Your task to perform on an android device: Search for "logitech g910" on ebay, select the first entry, add it to the cart, then select checkout. Image 0: 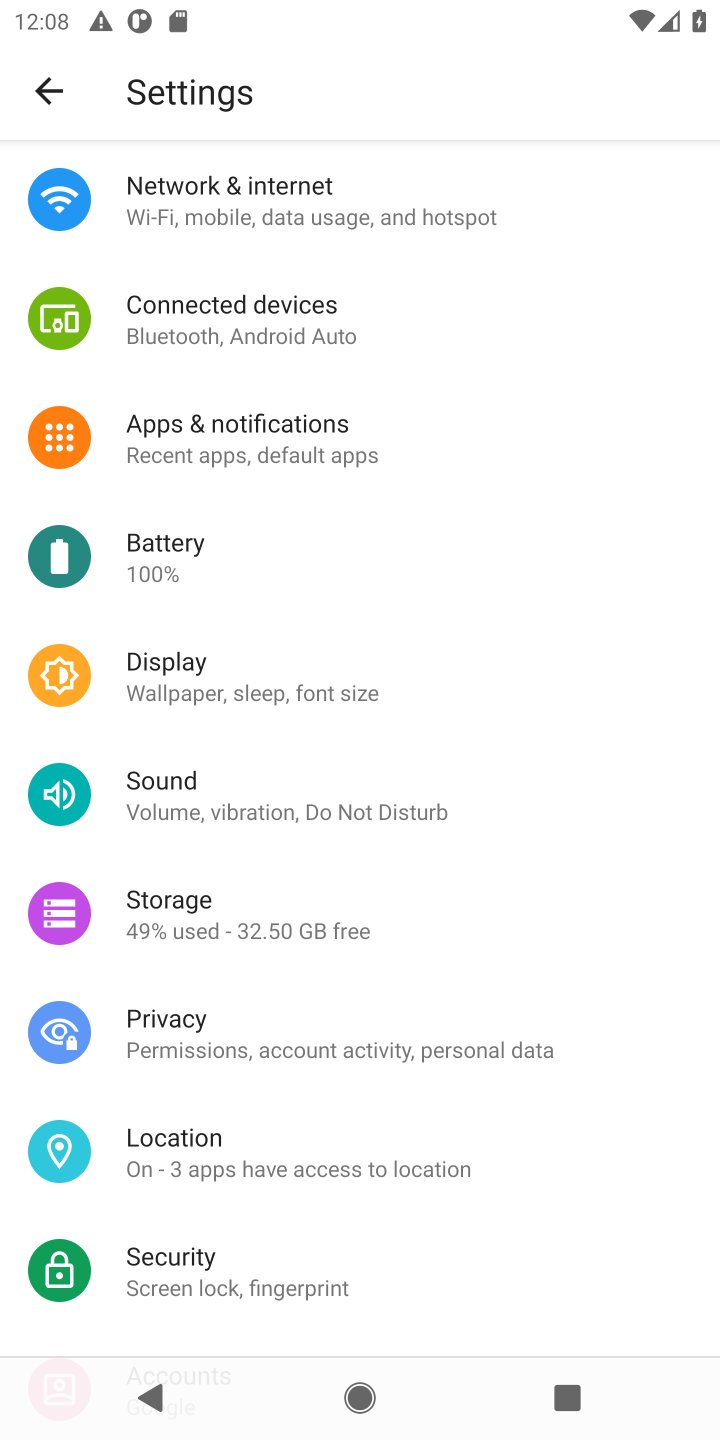
Step 0: press home button
Your task to perform on an android device: Search for "logitech g910" on ebay, select the first entry, add it to the cart, then select checkout. Image 1: 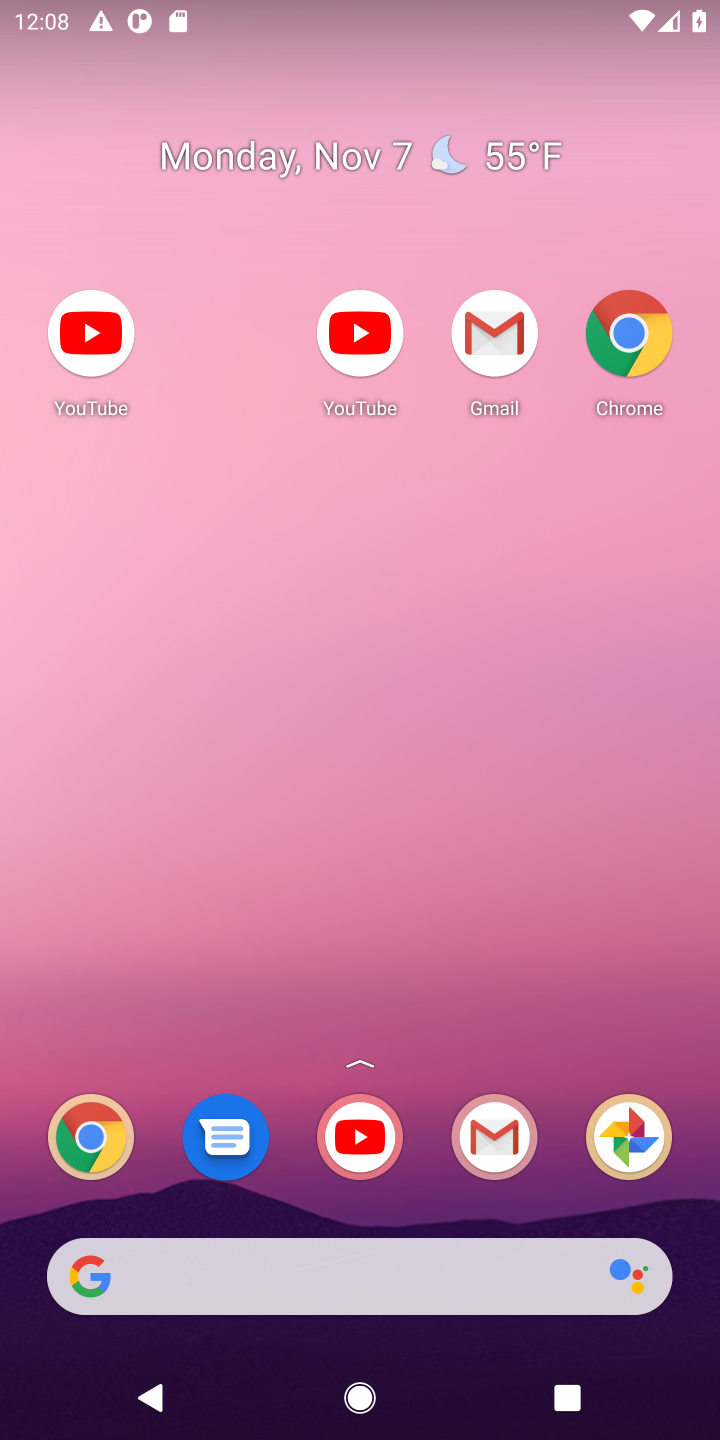
Step 1: drag from (425, 1206) to (374, 170)
Your task to perform on an android device: Search for "logitech g910" on ebay, select the first entry, add it to the cart, then select checkout. Image 2: 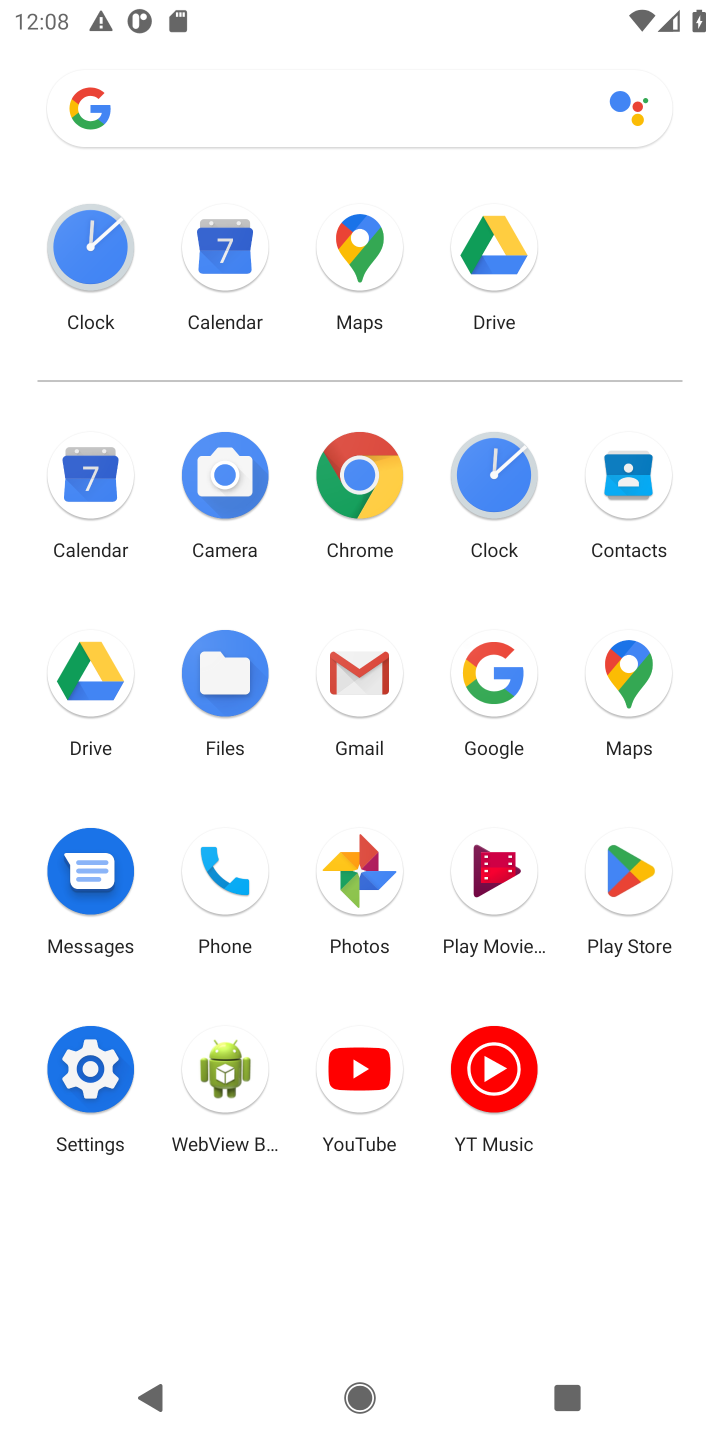
Step 2: click (361, 484)
Your task to perform on an android device: Search for "logitech g910" on ebay, select the first entry, add it to the cart, then select checkout. Image 3: 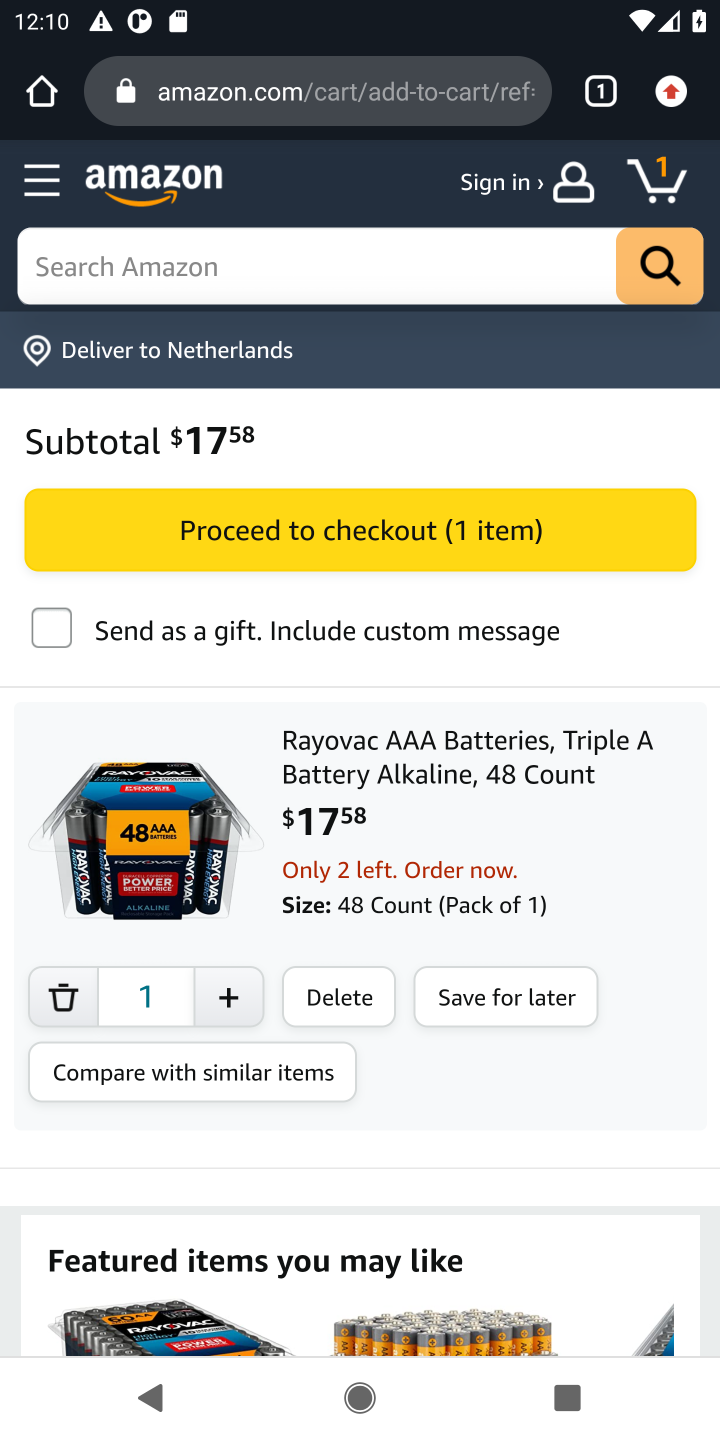
Step 3: click (418, 82)
Your task to perform on an android device: Search for "logitech g910" on ebay, select the first entry, add it to the cart, then select checkout. Image 4: 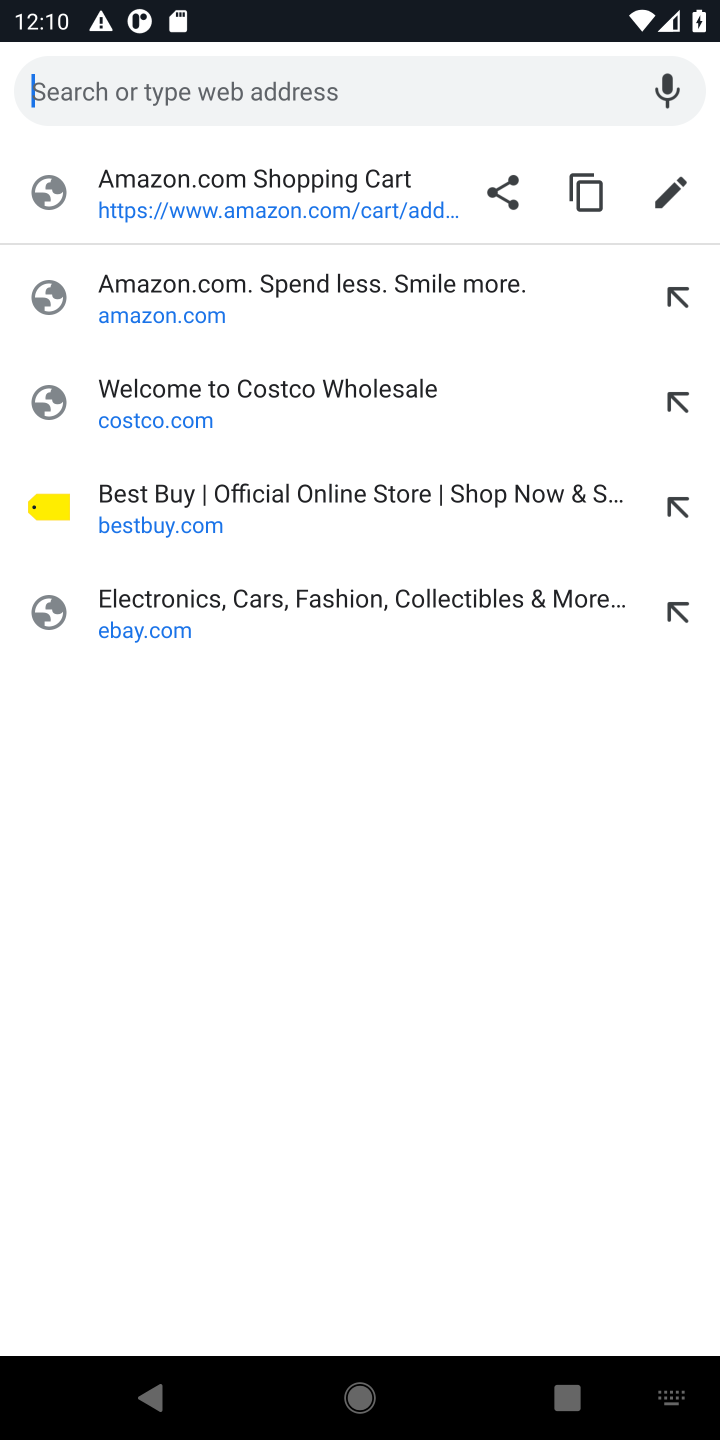
Step 4: type "ebay.com"
Your task to perform on an android device: Search for "logitech g910" on ebay, select the first entry, add it to the cart, then select checkout. Image 5: 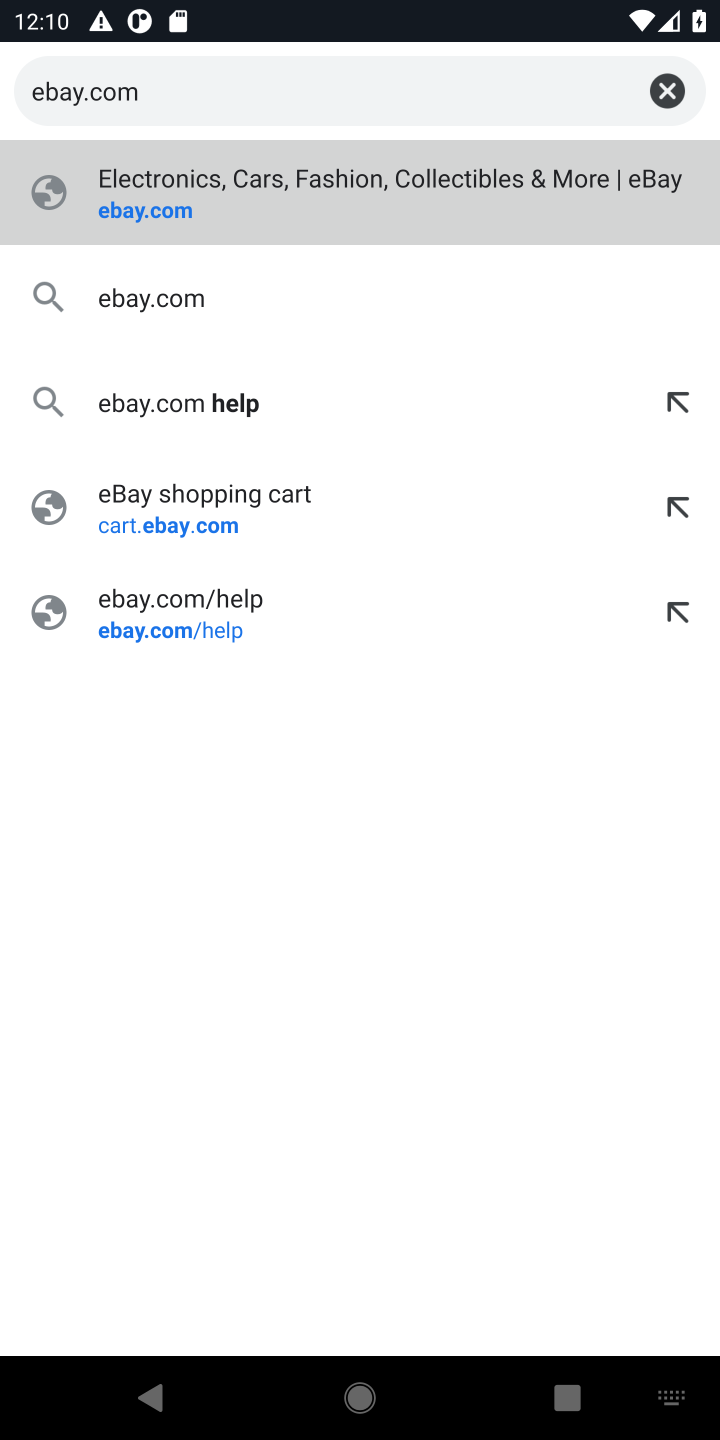
Step 5: press enter
Your task to perform on an android device: Search for "logitech g910" on ebay, select the first entry, add it to the cart, then select checkout. Image 6: 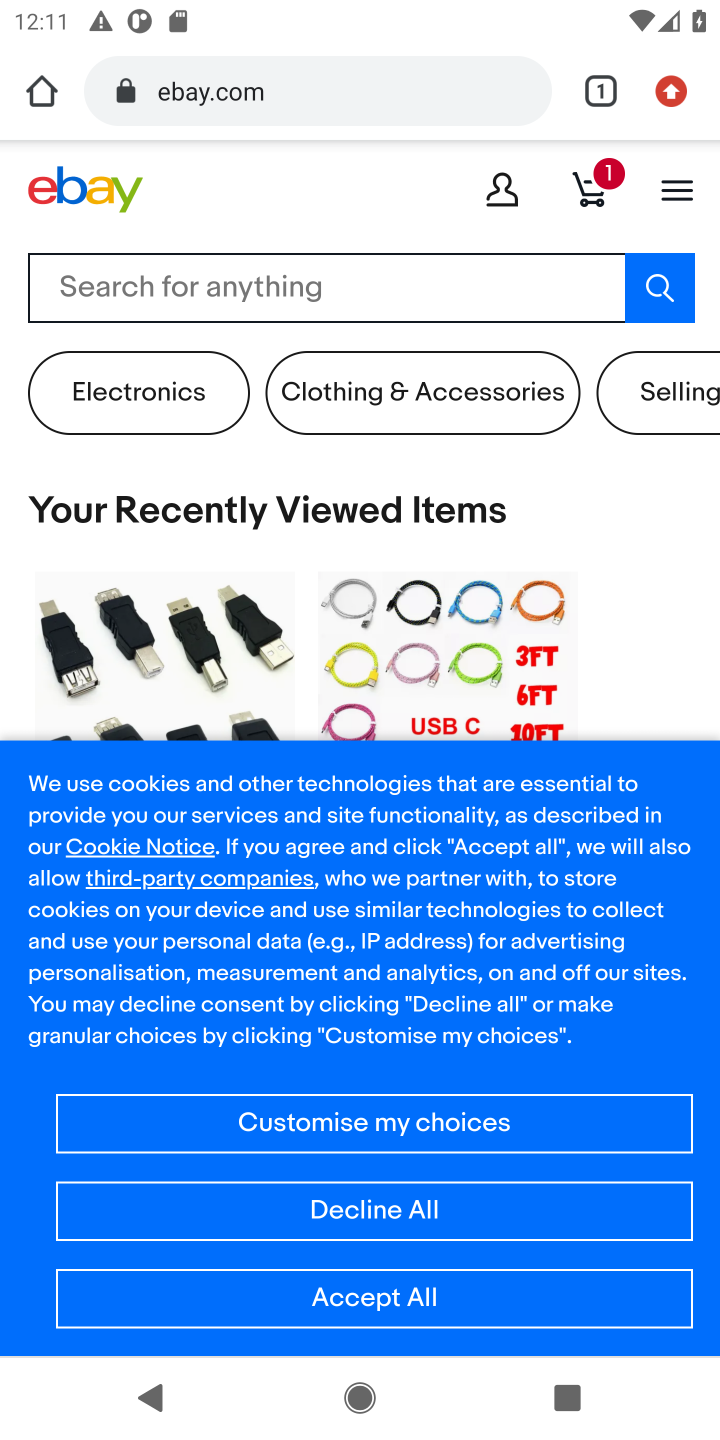
Step 6: click (418, 269)
Your task to perform on an android device: Search for "logitech g910" on ebay, select the first entry, add it to the cart, then select checkout. Image 7: 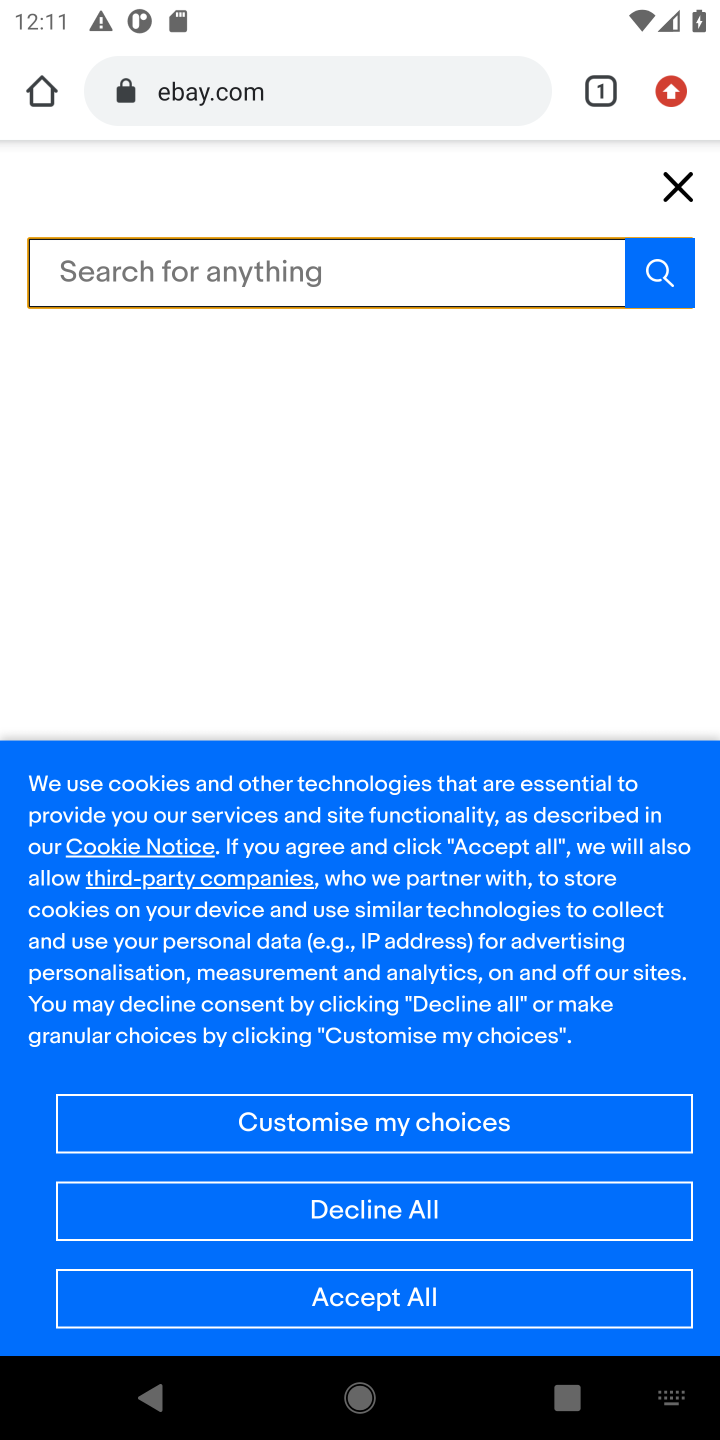
Step 7: type "logitech g910"
Your task to perform on an android device: Search for "logitech g910" on ebay, select the first entry, add it to the cart, then select checkout. Image 8: 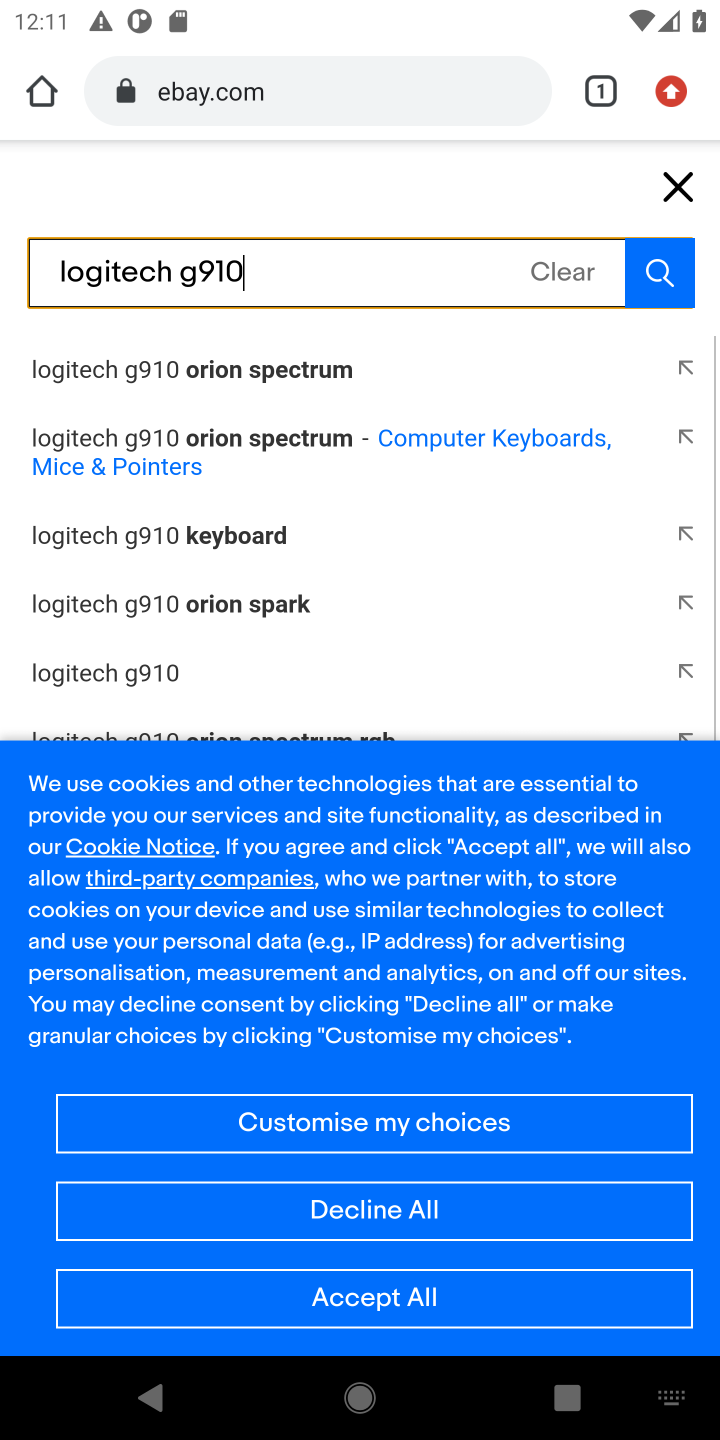
Step 8: press enter
Your task to perform on an android device: Search for "logitech g910" on ebay, select the first entry, add it to the cart, then select checkout. Image 9: 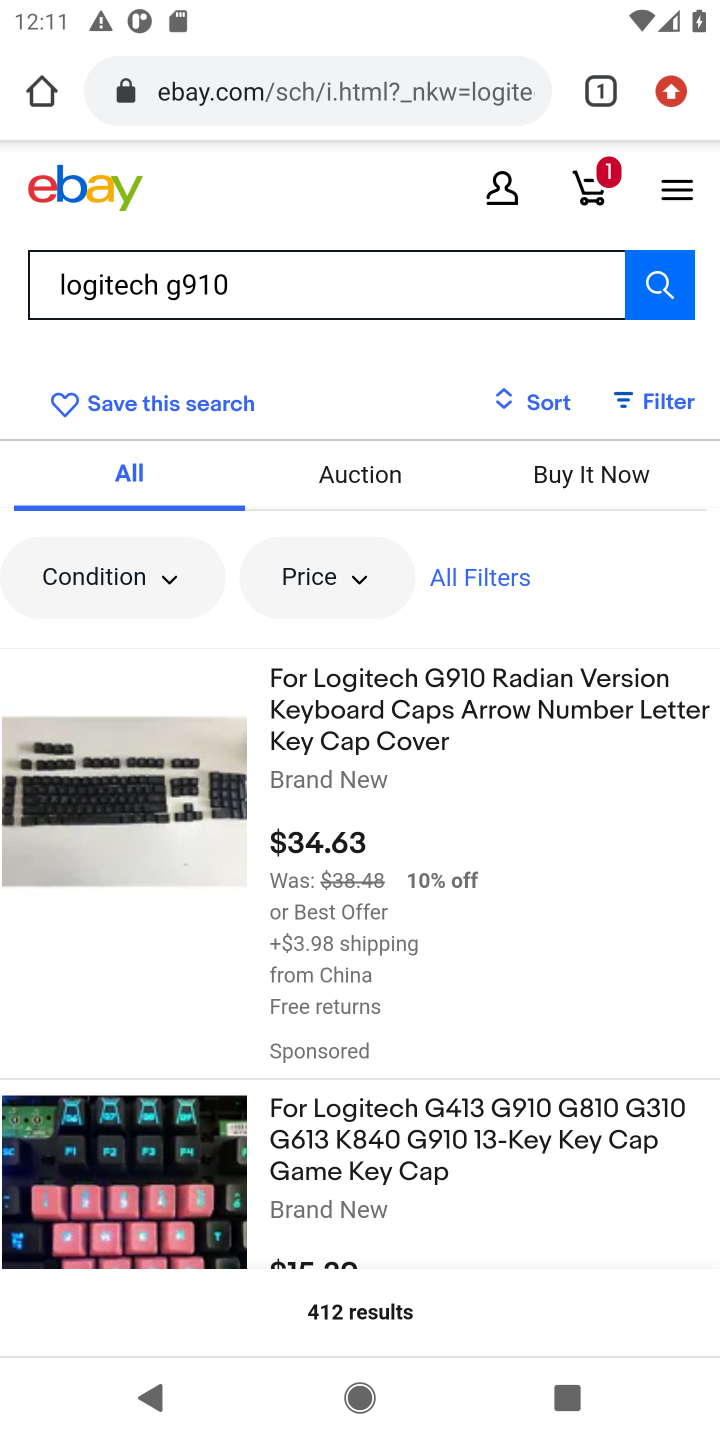
Step 9: click (349, 716)
Your task to perform on an android device: Search for "logitech g910" on ebay, select the first entry, add it to the cart, then select checkout. Image 10: 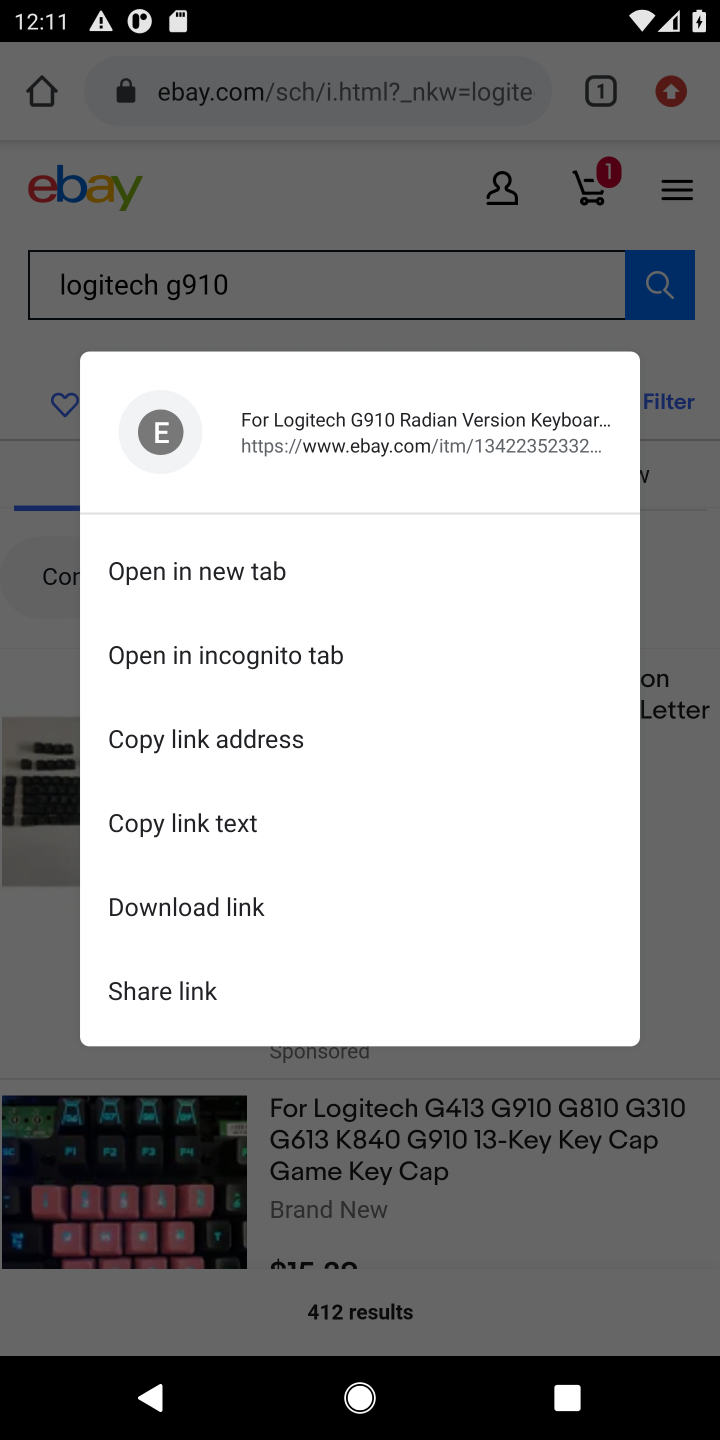
Step 10: click (33, 759)
Your task to perform on an android device: Search for "logitech g910" on ebay, select the first entry, add it to the cart, then select checkout. Image 11: 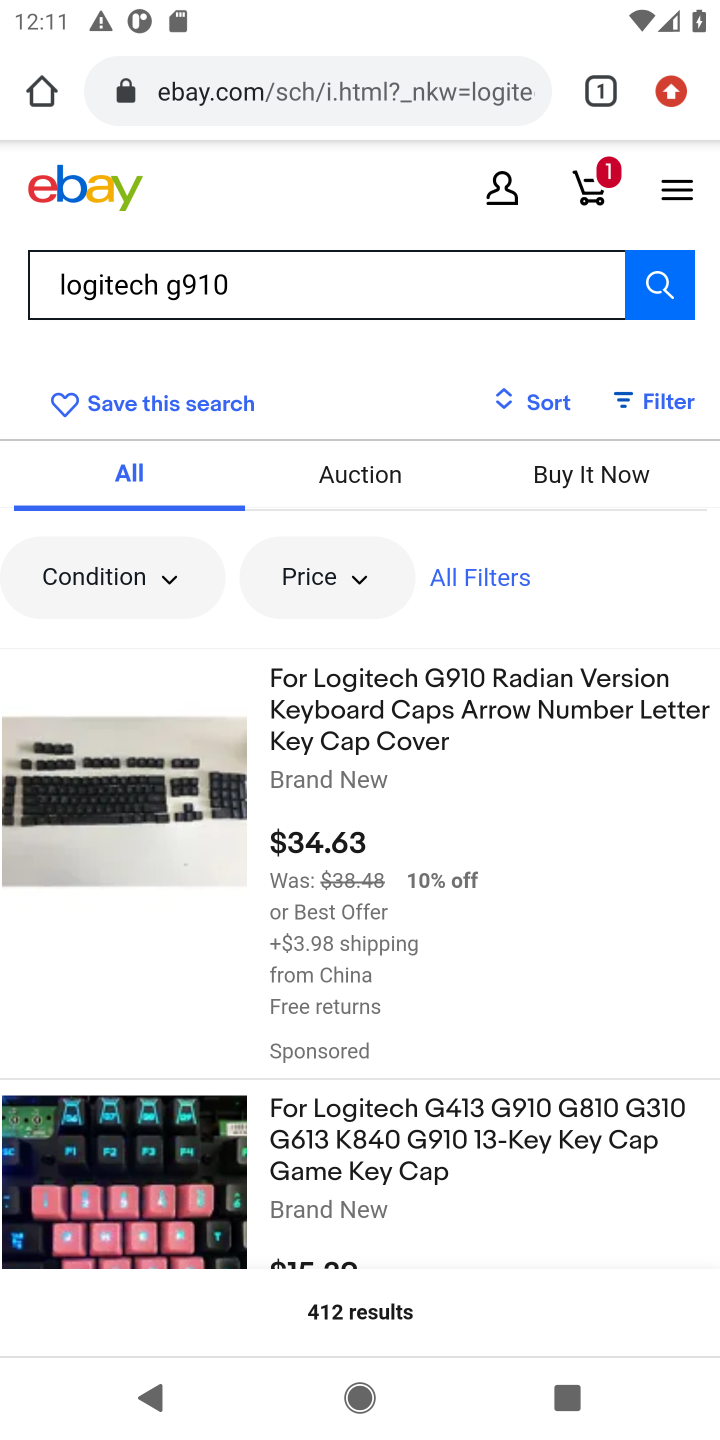
Step 11: click (428, 715)
Your task to perform on an android device: Search for "logitech g910" on ebay, select the first entry, add it to the cart, then select checkout. Image 12: 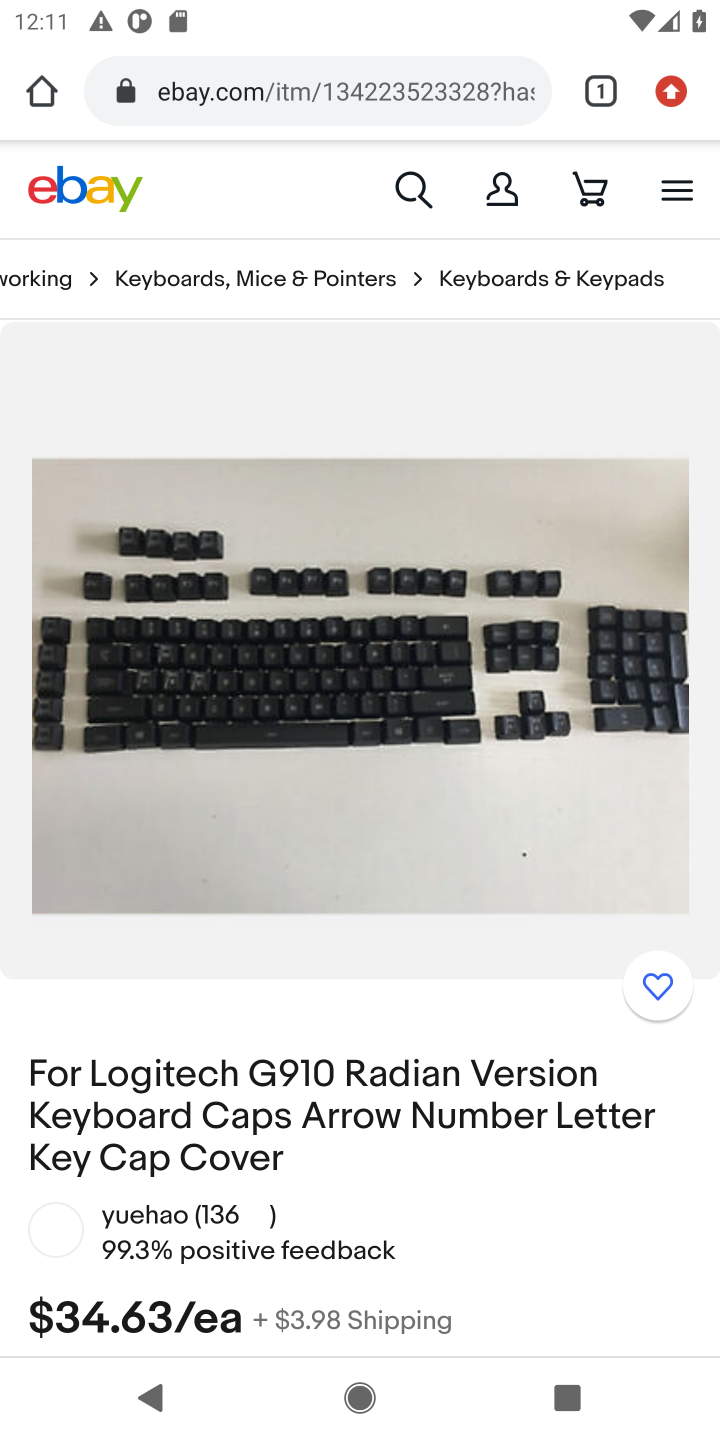
Step 12: drag from (502, 1130) to (478, 741)
Your task to perform on an android device: Search for "logitech g910" on ebay, select the first entry, add it to the cart, then select checkout. Image 13: 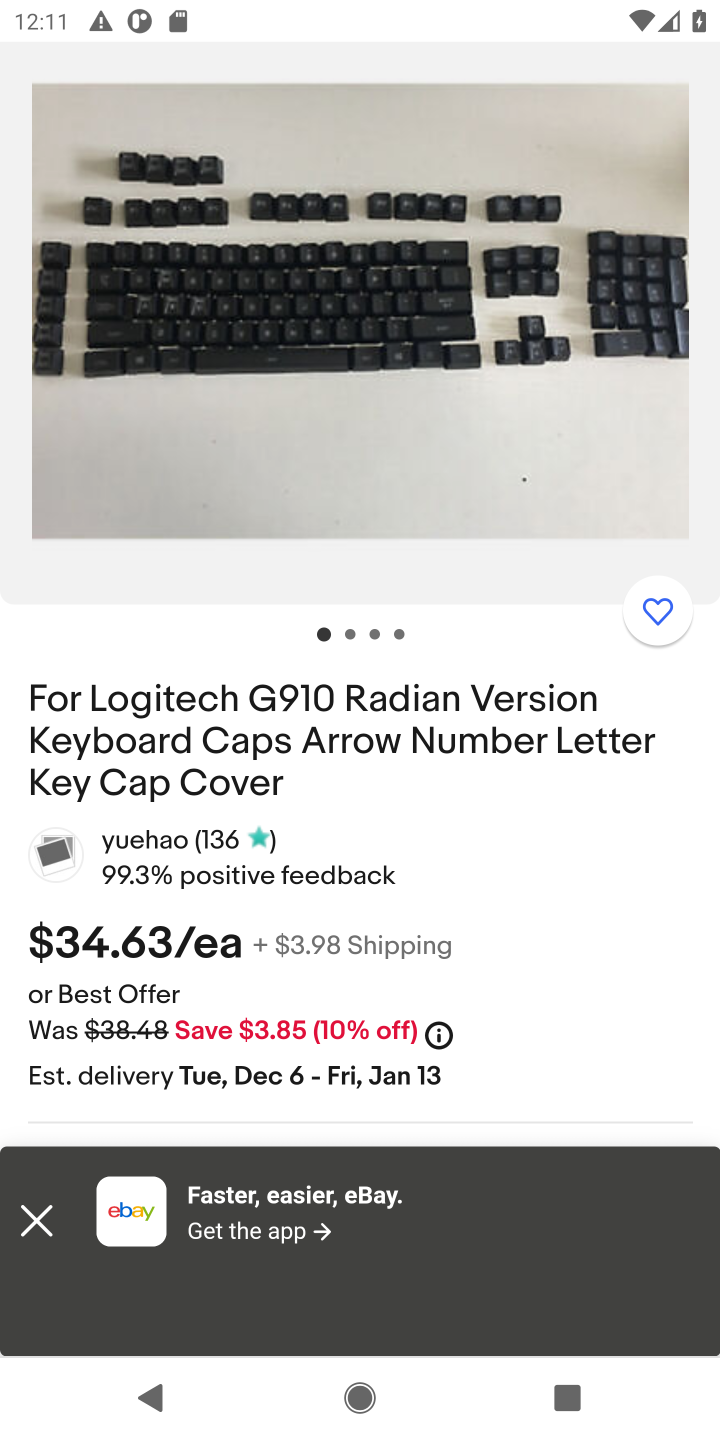
Step 13: drag from (494, 885) to (453, 284)
Your task to perform on an android device: Search for "logitech g910" on ebay, select the first entry, add it to the cart, then select checkout. Image 14: 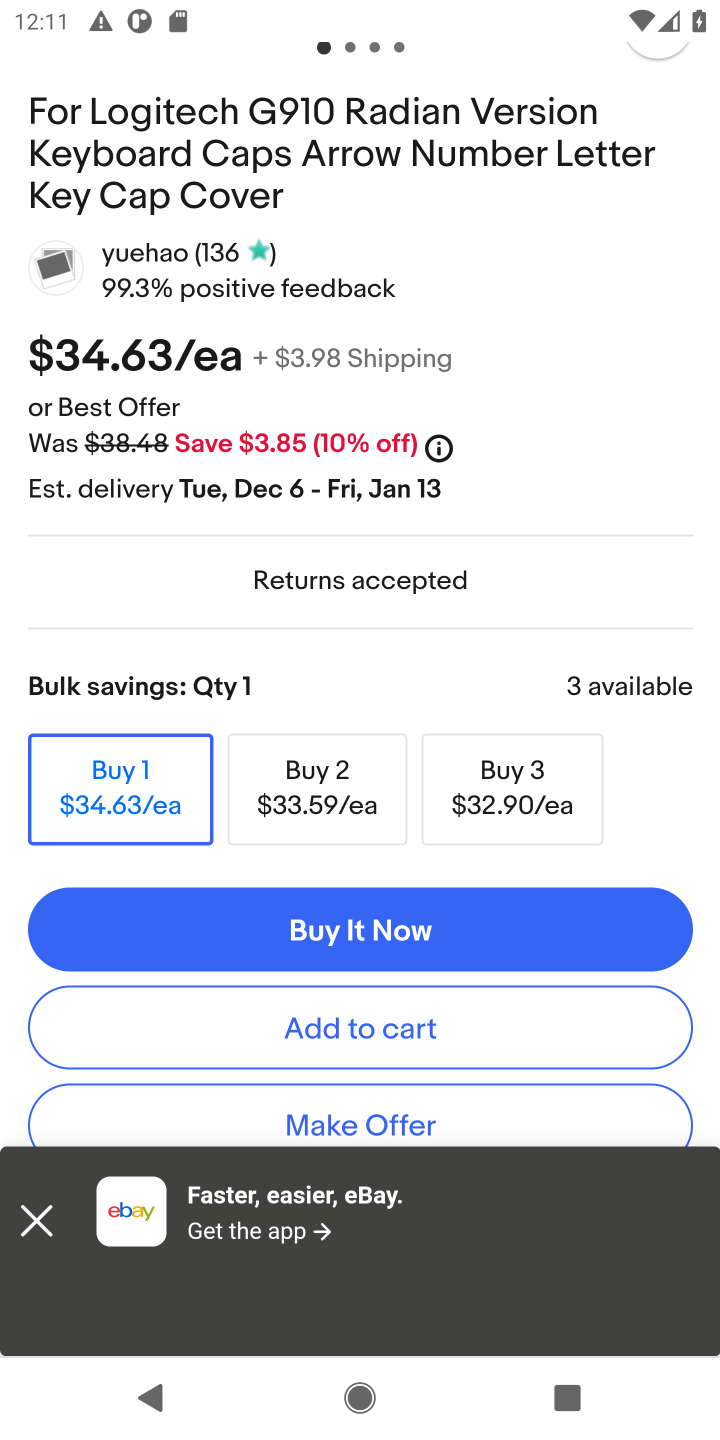
Step 14: click (453, 1003)
Your task to perform on an android device: Search for "logitech g910" on ebay, select the first entry, add it to the cart, then select checkout. Image 15: 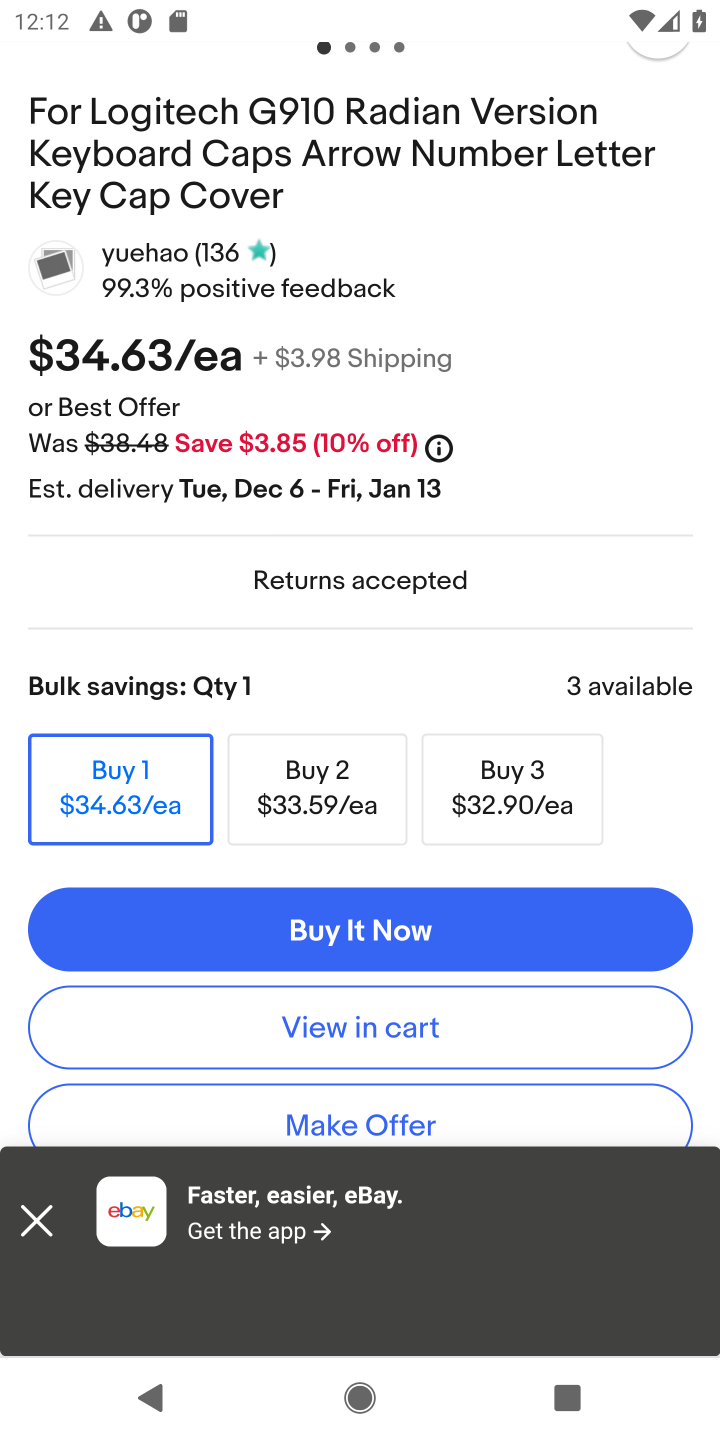
Step 15: click (514, 1011)
Your task to perform on an android device: Search for "logitech g910" on ebay, select the first entry, add it to the cart, then select checkout. Image 16: 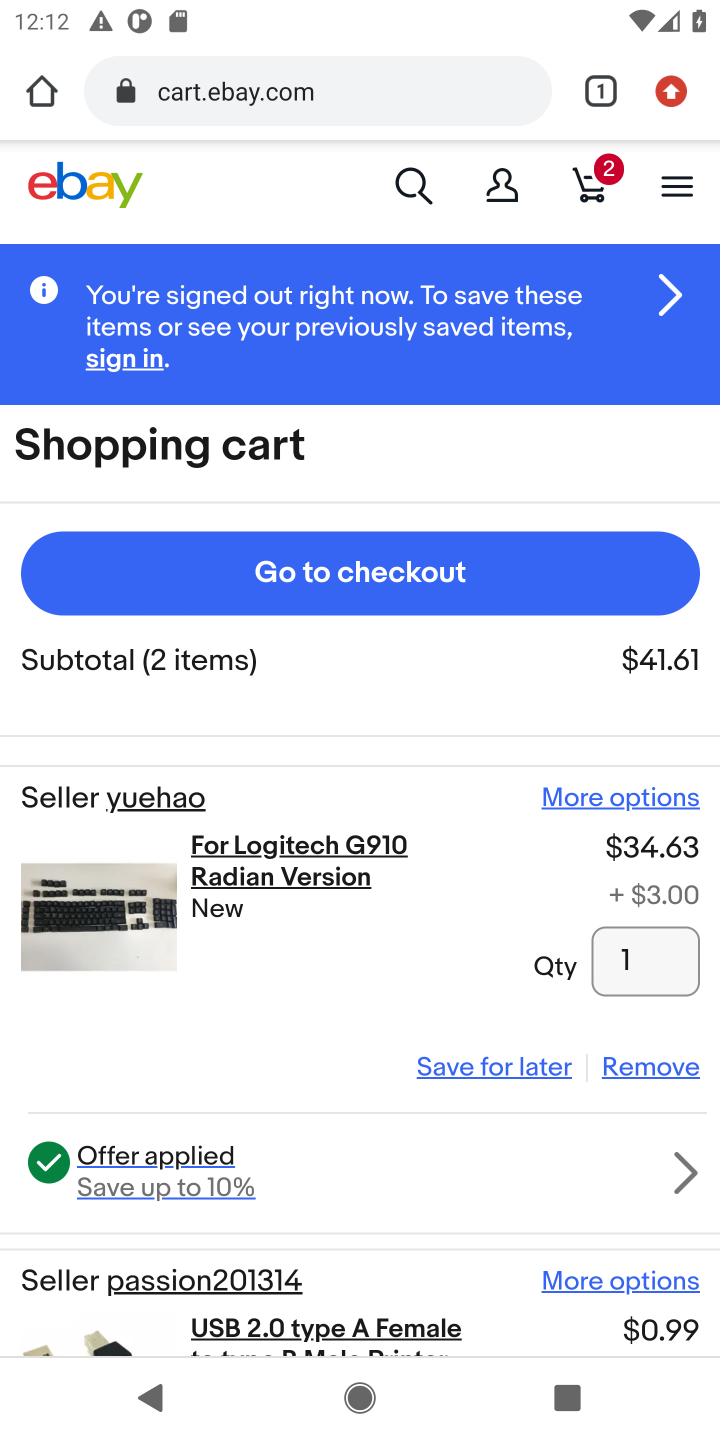
Step 16: click (454, 572)
Your task to perform on an android device: Search for "logitech g910" on ebay, select the first entry, add it to the cart, then select checkout. Image 17: 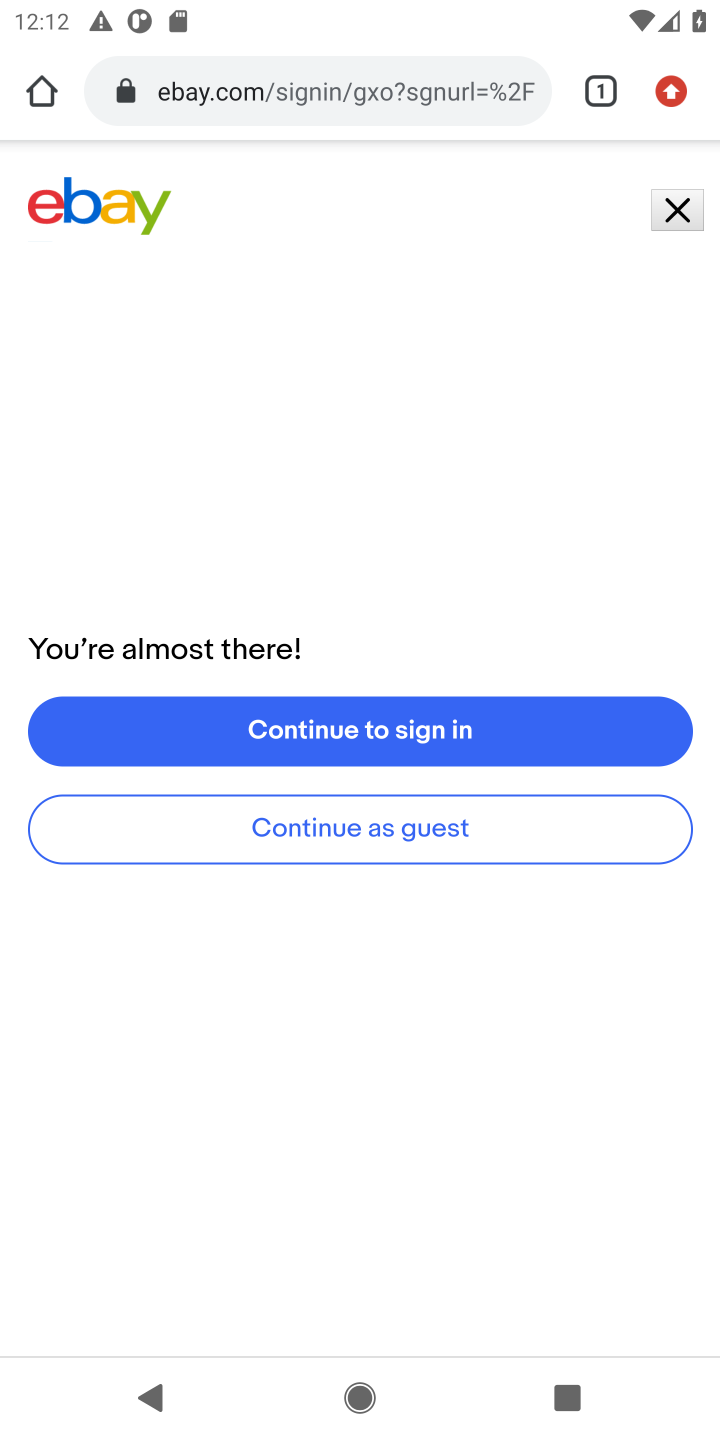
Step 17: task complete